Your task to perform on an android device: Go to network settings Image 0: 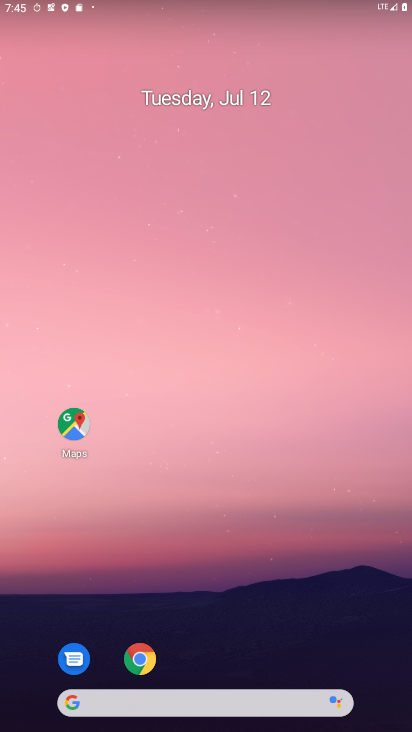
Step 0: drag from (345, 655) to (7, 206)
Your task to perform on an android device: Go to network settings Image 1: 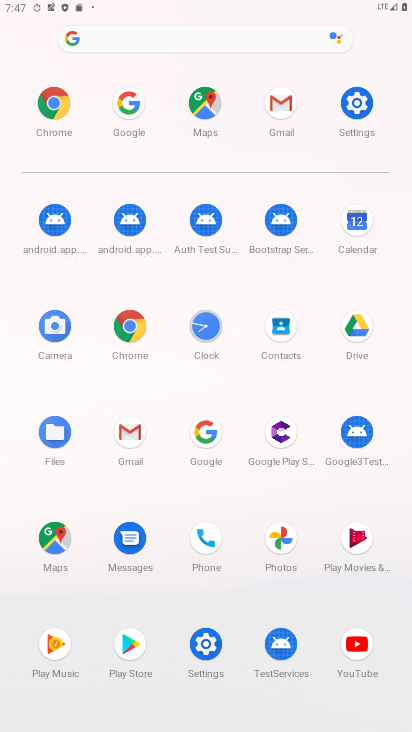
Step 1: click (225, 640)
Your task to perform on an android device: Go to network settings Image 2: 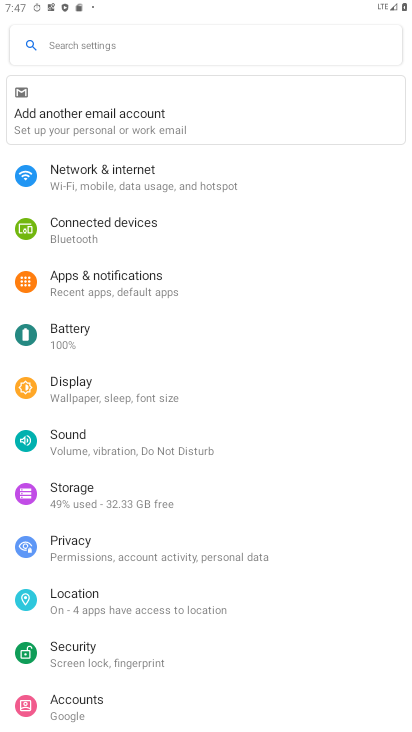
Step 2: click (121, 179)
Your task to perform on an android device: Go to network settings Image 3: 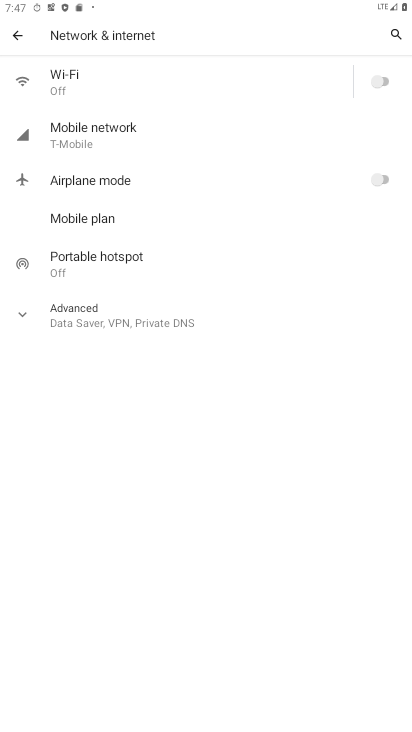
Step 3: task complete